Your task to perform on an android device: Find coffee shops on Maps Image 0: 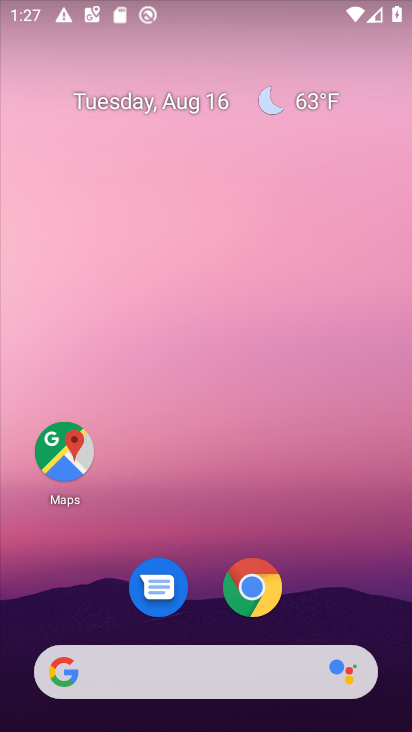
Step 0: click (88, 466)
Your task to perform on an android device: Find coffee shops on Maps Image 1: 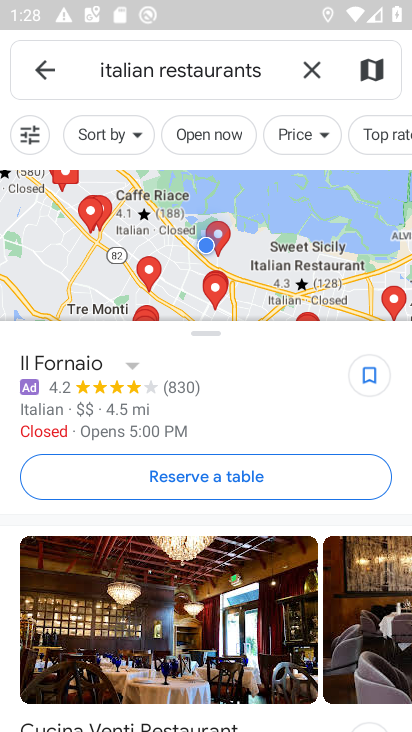
Step 1: click (323, 68)
Your task to perform on an android device: Find coffee shops on Maps Image 2: 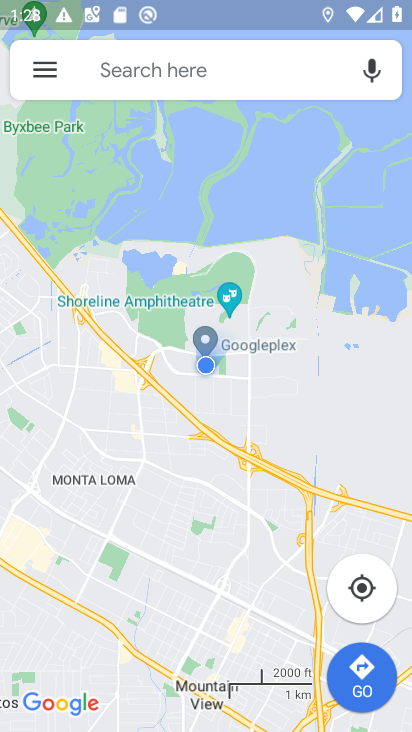
Step 2: click (224, 65)
Your task to perform on an android device: Find coffee shops on Maps Image 3: 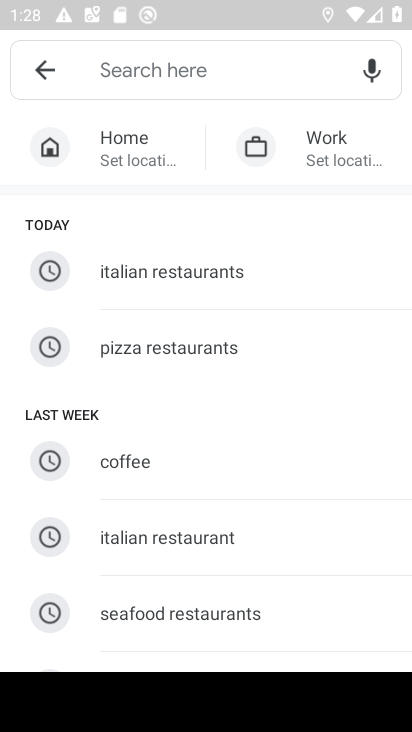
Step 3: click (107, 459)
Your task to perform on an android device: Find coffee shops on Maps Image 4: 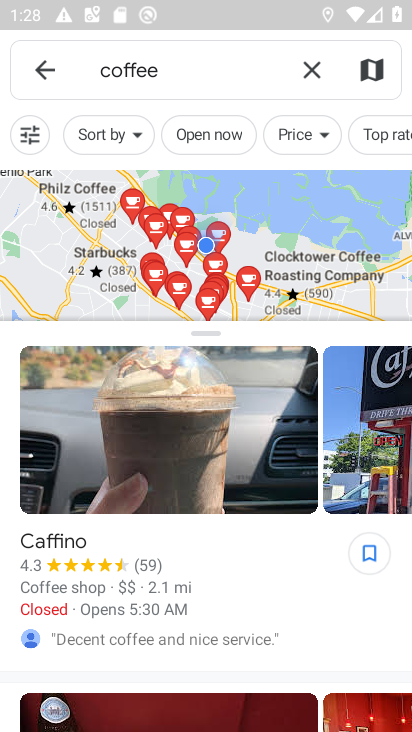
Step 4: task complete